Your task to perform on an android device: turn notification dots off Image 0: 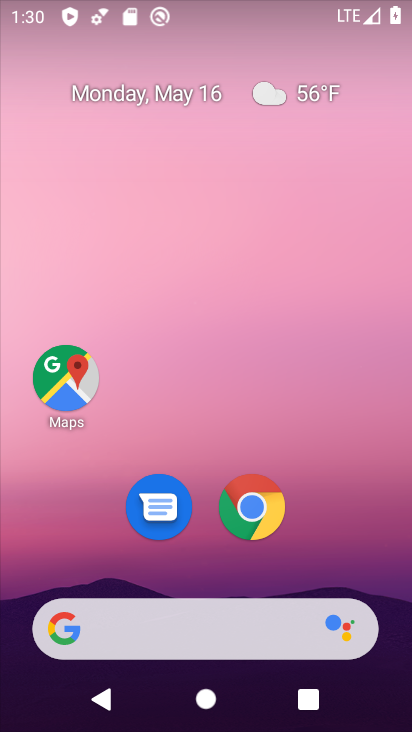
Step 0: drag from (193, 585) to (193, 145)
Your task to perform on an android device: turn notification dots off Image 1: 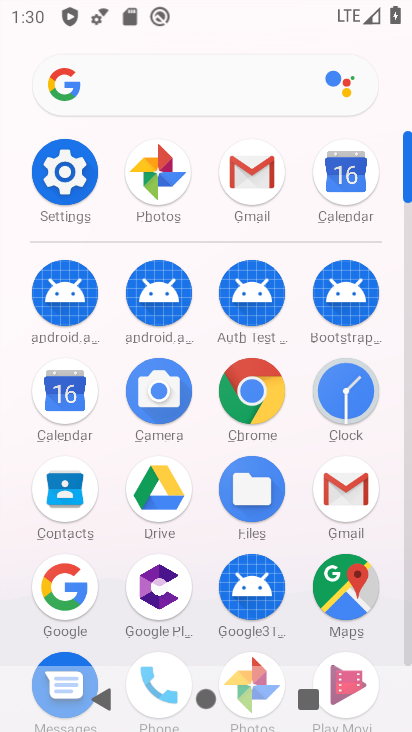
Step 1: click (66, 179)
Your task to perform on an android device: turn notification dots off Image 2: 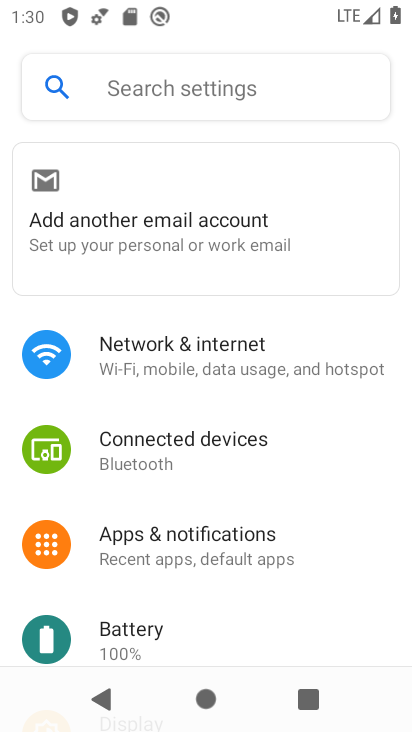
Step 2: click (209, 536)
Your task to perform on an android device: turn notification dots off Image 3: 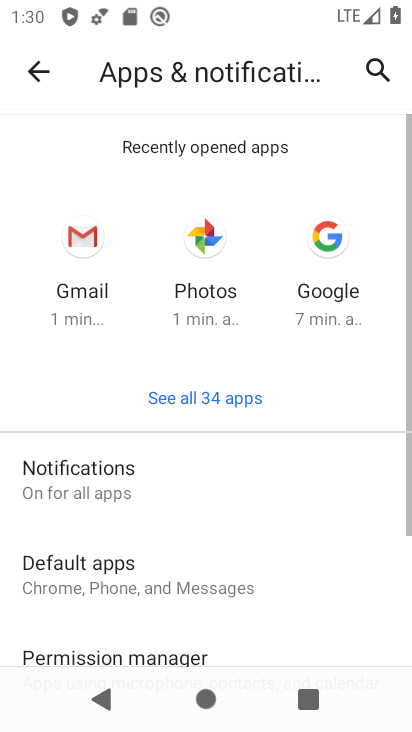
Step 3: click (124, 486)
Your task to perform on an android device: turn notification dots off Image 4: 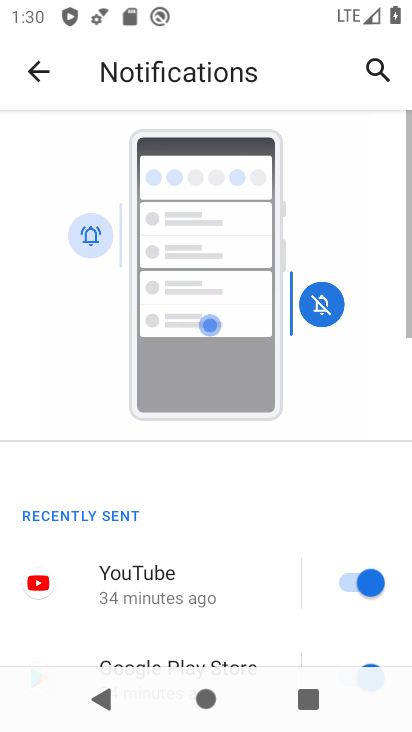
Step 4: drag from (230, 569) to (275, 262)
Your task to perform on an android device: turn notification dots off Image 5: 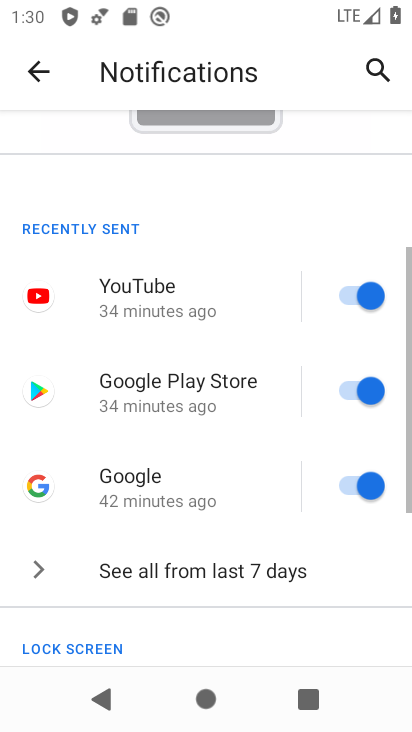
Step 5: drag from (235, 544) to (245, 250)
Your task to perform on an android device: turn notification dots off Image 6: 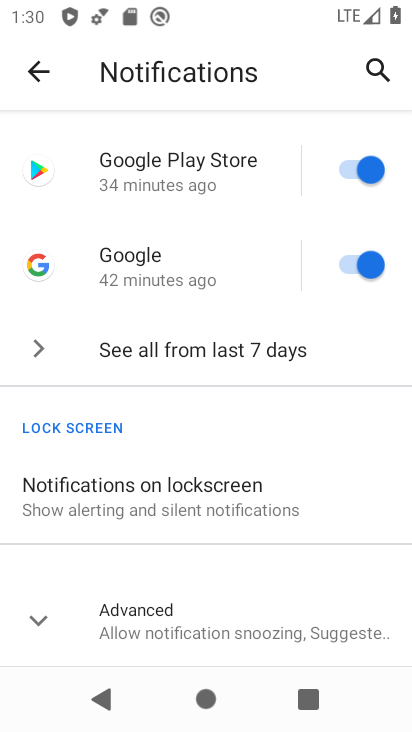
Step 6: drag from (268, 565) to (286, 333)
Your task to perform on an android device: turn notification dots off Image 7: 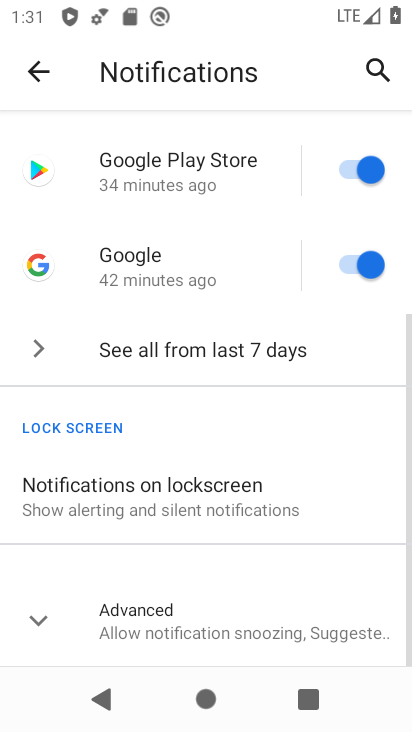
Step 7: click (232, 479)
Your task to perform on an android device: turn notification dots off Image 8: 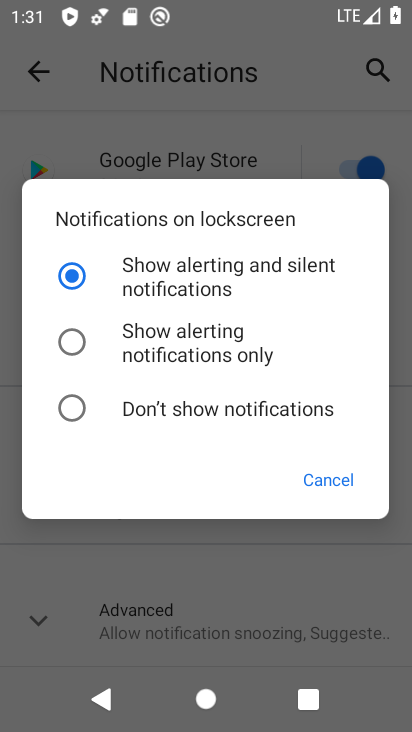
Step 8: click (327, 474)
Your task to perform on an android device: turn notification dots off Image 9: 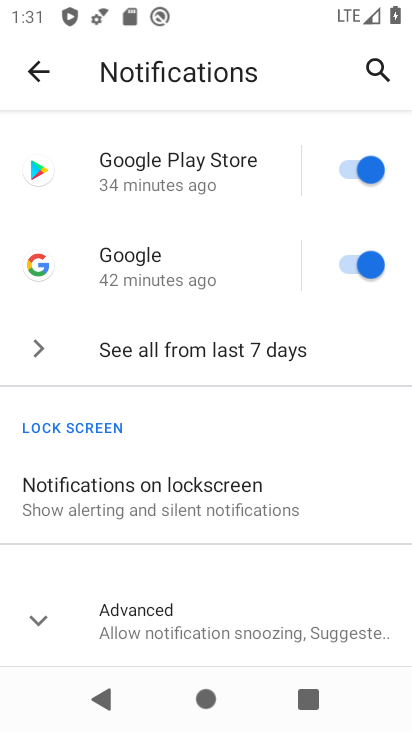
Step 9: click (198, 601)
Your task to perform on an android device: turn notification dots off Image 10: 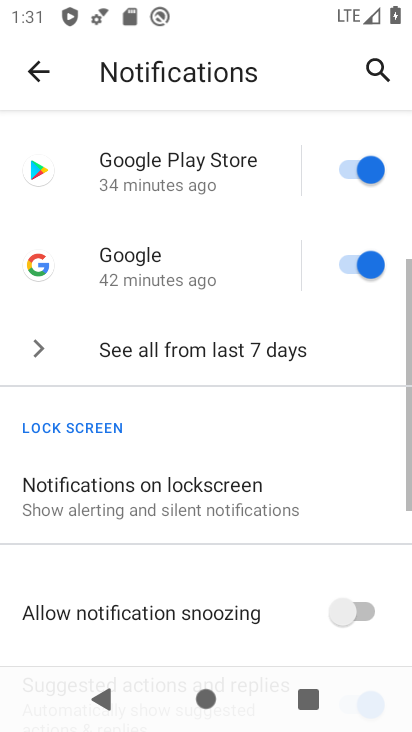
Step 10: drag from (249, 529) to (276, 274)
Your task to perform on an android device: turn notification dots off Image 11: 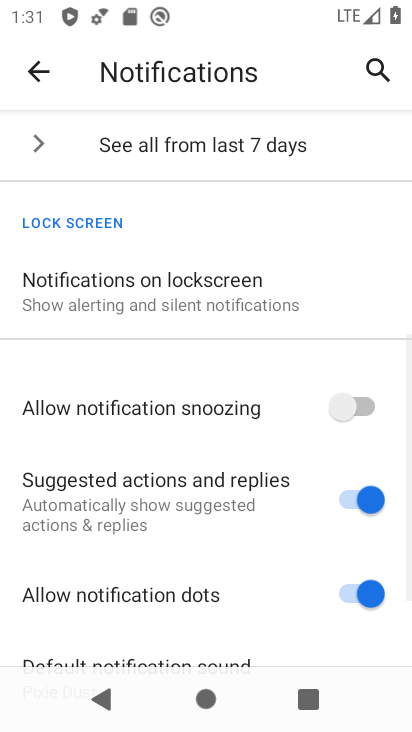
Step 11: drag from (250, 512) to (242, 231)
Your task to perform on an android device: turn notification dots off Image 12: 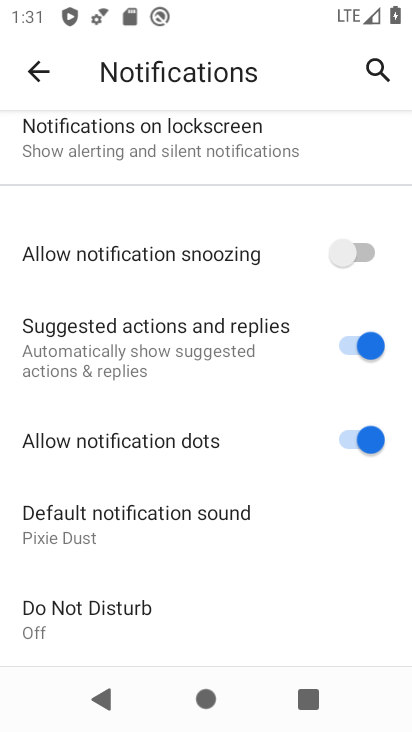
Step 12: click (345, 440)
Your task to perform on an android device: turn notification dots off Image 13: 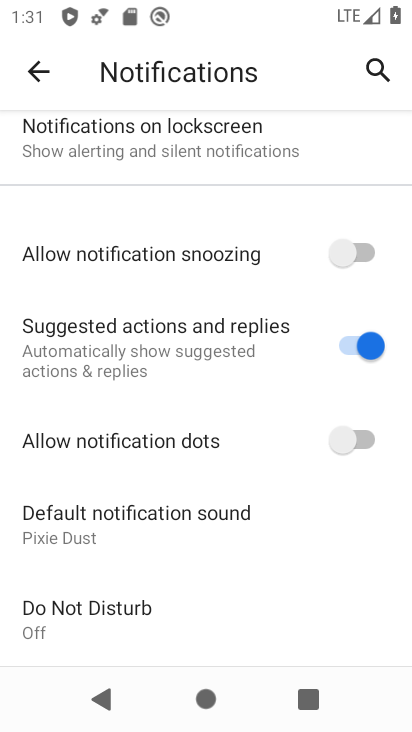
Step 13: task complete